Your task to perform on an android device: turn off data saver in the chrome app Image 0: 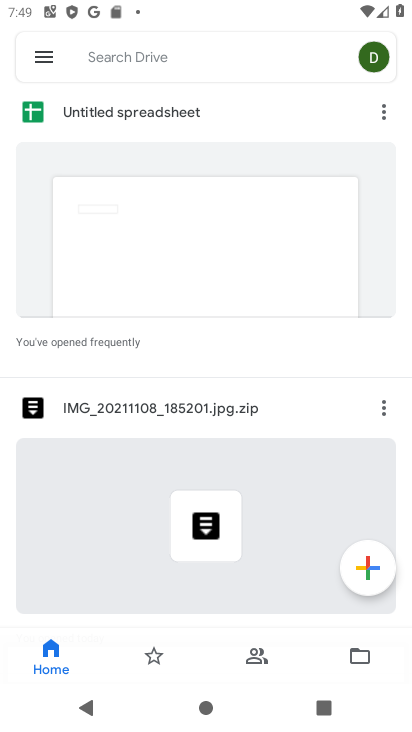
Step 0: press home button
Your task to perform on an android device: turn off data saver in the chrome app Image 1: 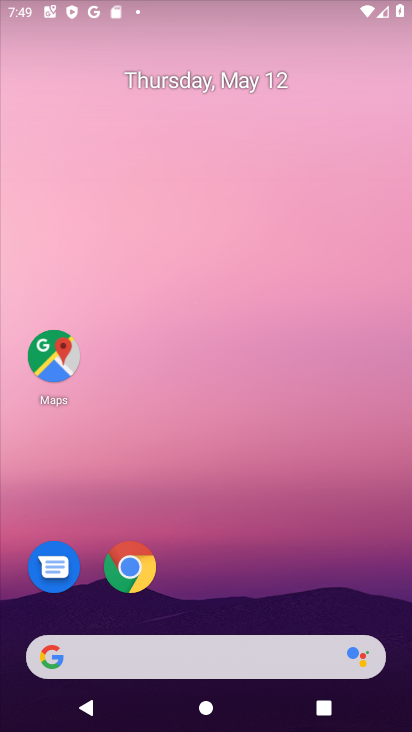
Step 1: drag from (184, 577) to (241, 113)
Your task to perform on an android device: turn off data saver in the chrome app Image 2: 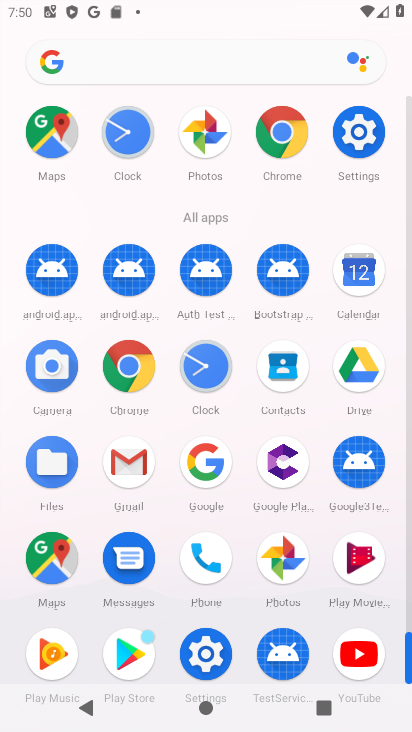
Step 2: click (144, 372)
Your task to perform on an android device: turn off data saver in the chrome app Image 3: 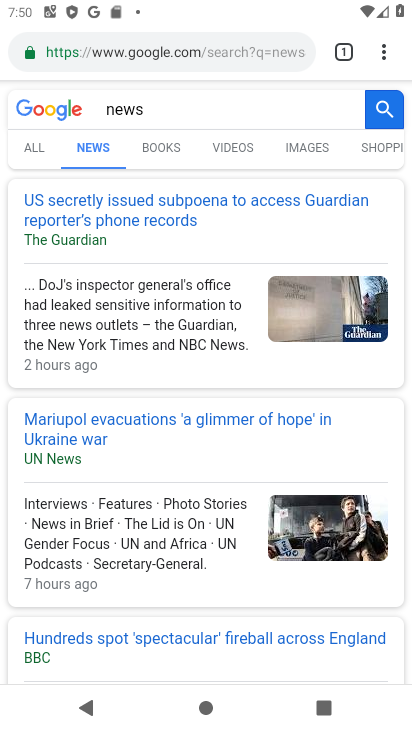
Step 3: click (382, 56)
Your task to perform on an android device: turn off data saver in the chrome app Image 4: 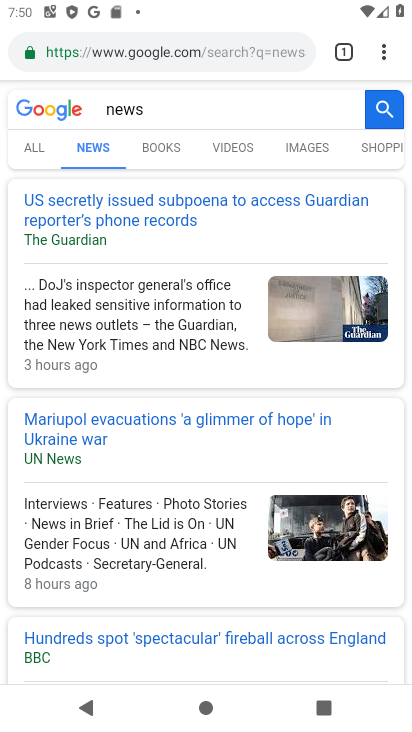
Step 4: click (400, 60)
Your task to perform on an android device: turn off data saver in the chrome app Image 5: 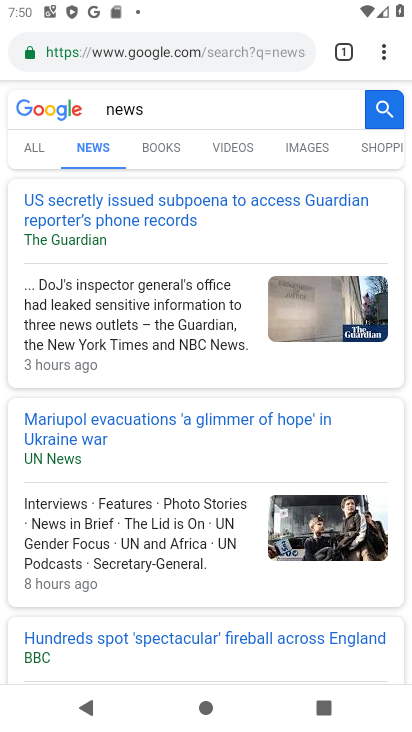
Step 5: click (395, 39)
Your task to perform on an android device: turn off data saver in the chrome app Image 6: 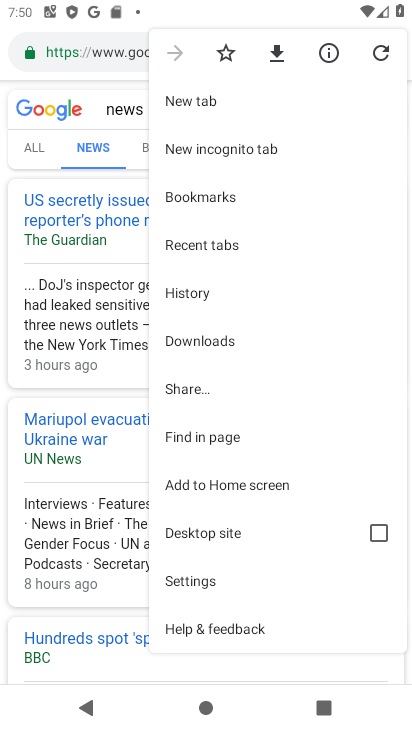
Step 6: click (218, 581)
Your task to perform on an android device: turn off data saver in the chrome app Image 7: 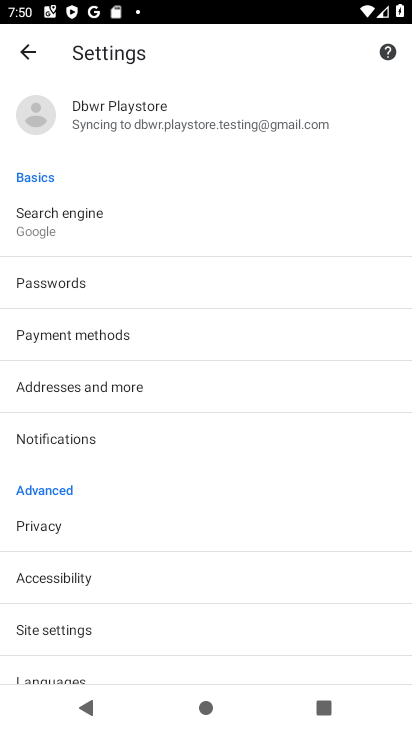
Step 7: drag from (184, 595) to (187, 423)
Your task to perform on an android device: turn off data saver in the chrome app Image 8: 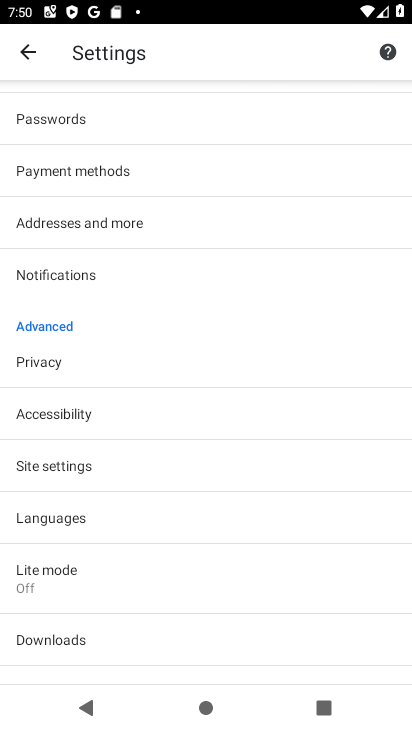
Step 8: click (84, 569)
Your task to perform on an android device: turn off data saver in the chrome app Image 9: 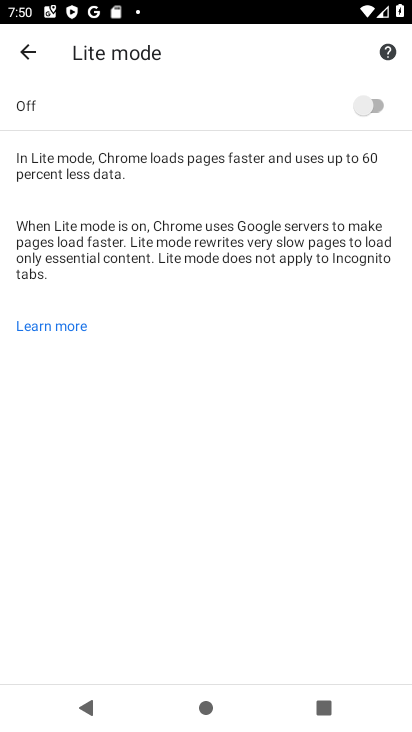
Step 9: task complete